Your task to perform on an android device: manage bookmarks in the chrome app Image 0: 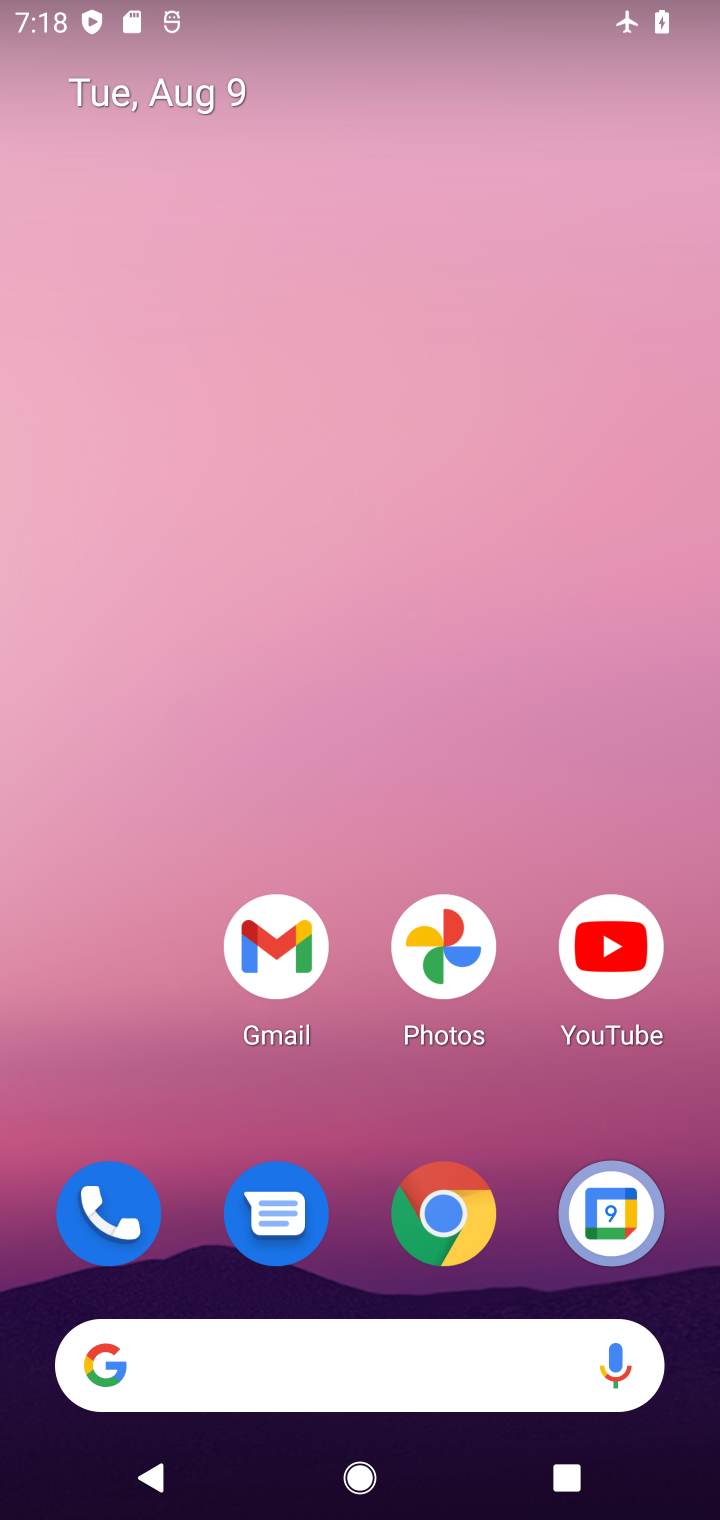
Step 0: click (424, 1213)
Your task to perform on an android device: manage bookmarks in the chrome app Image 1: 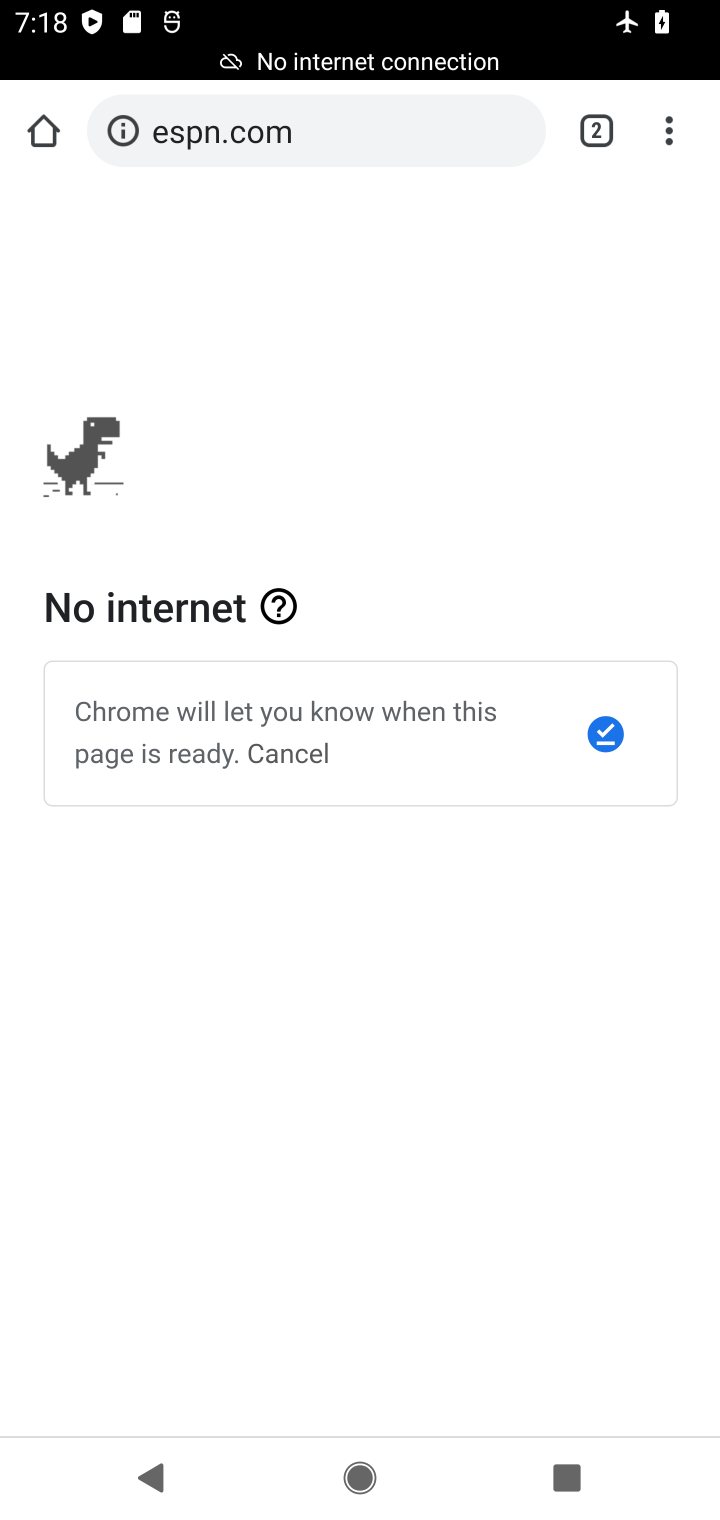
Step 1: click (659, 128)
Your task to perform on an android device: manage bookmarks in the chrome app Image 2: 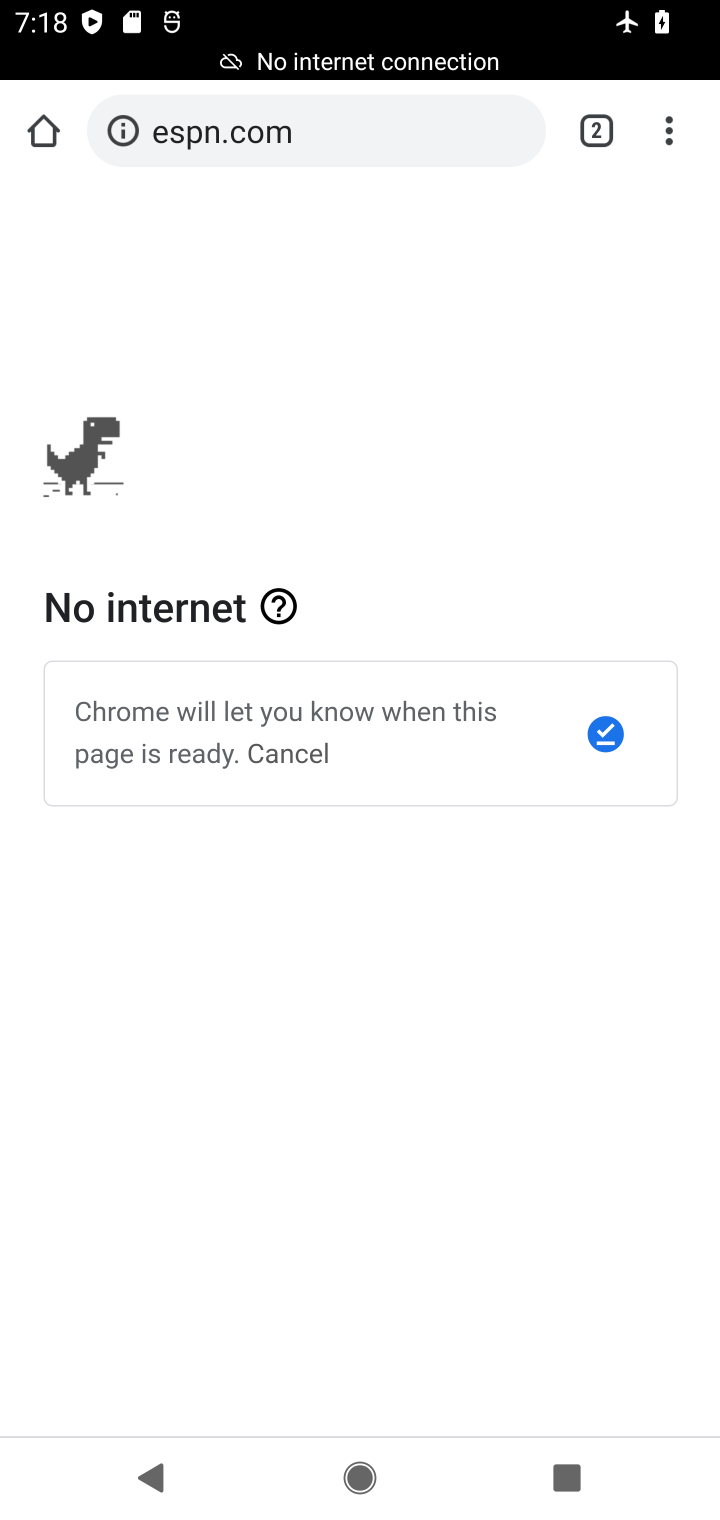
Step 2: click (664, 136)
Your task to perform on an android device: manage bookmarks in the chrome app Image 3: 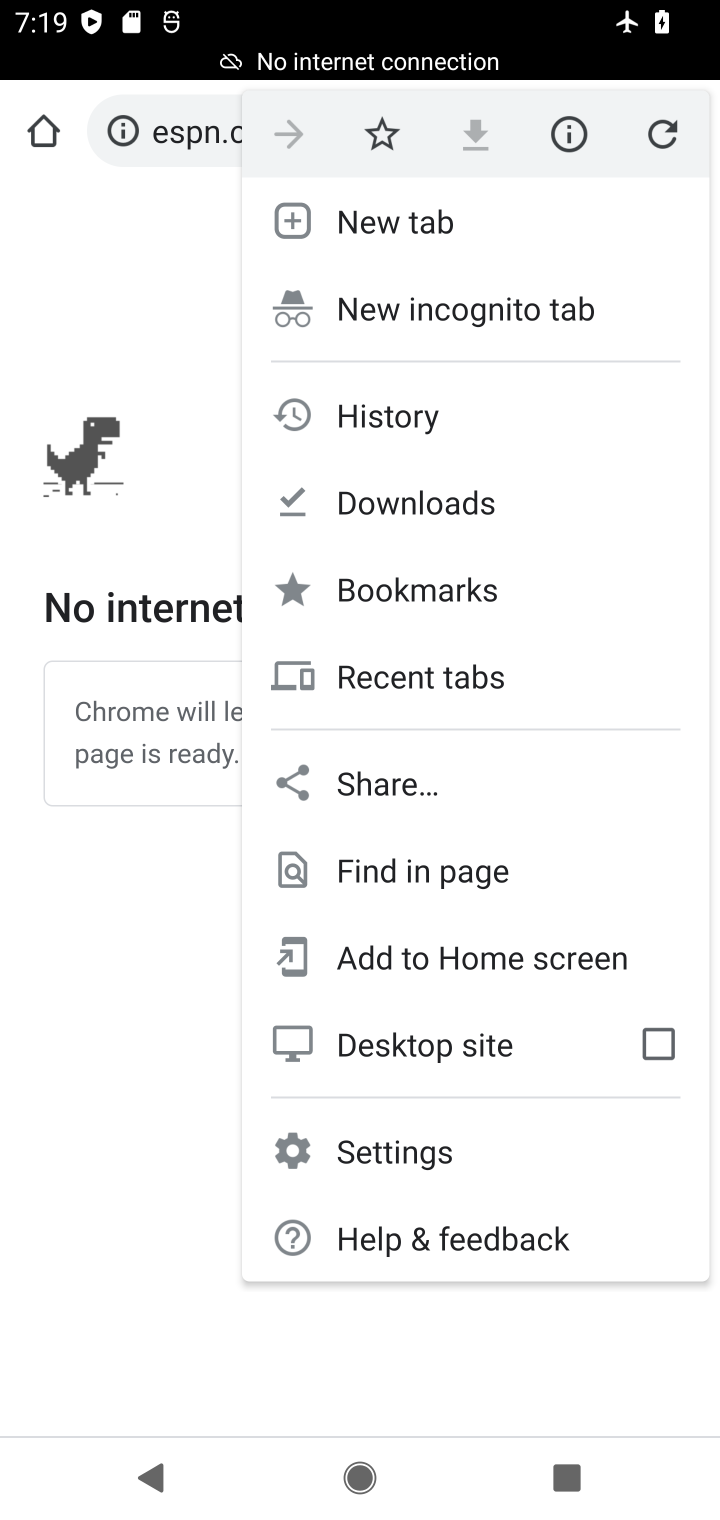
Step 3: click (357, 621)
Your task to perform on an android device: manage bookmarks in the chrome app Image 4: 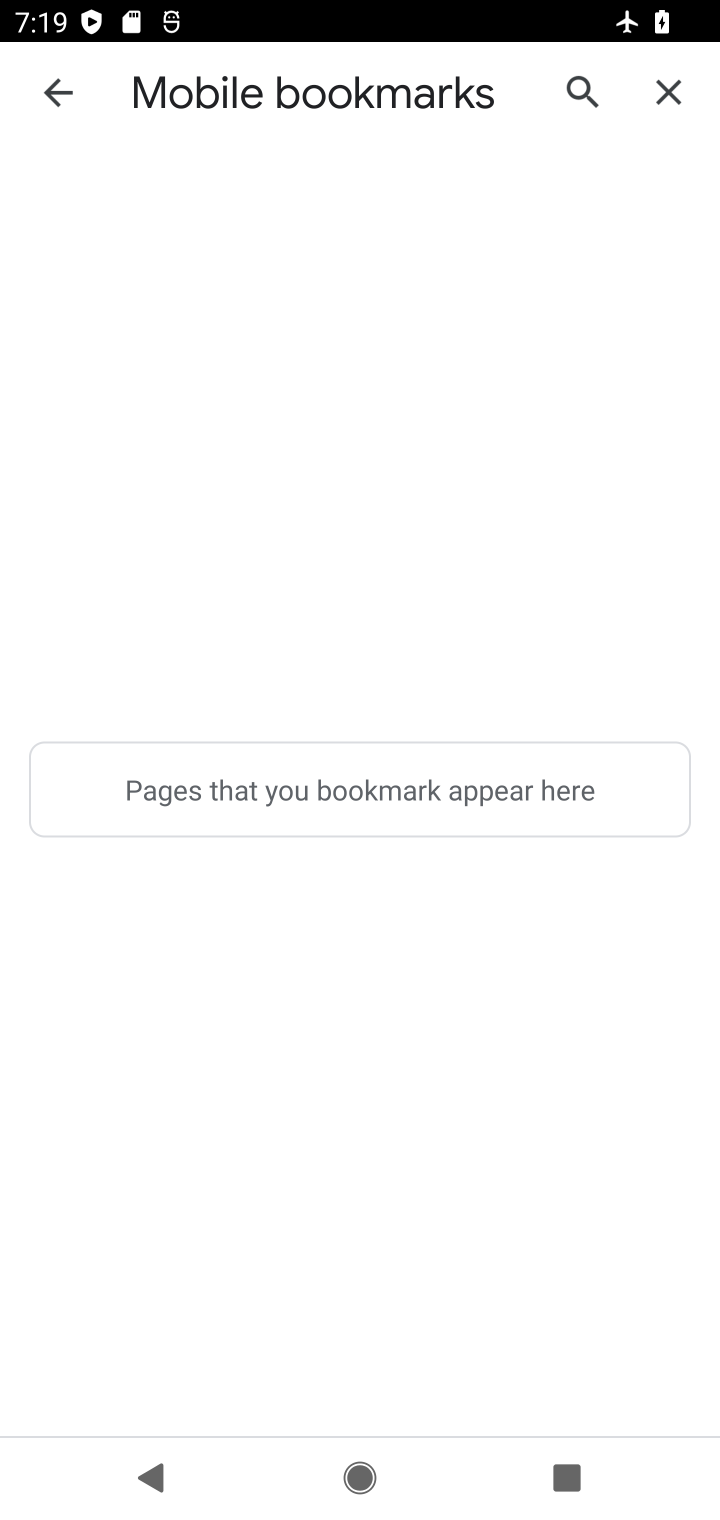
Step 4: task complete